Your task to perform on an android device: change the clock display to show seconds Image 0: 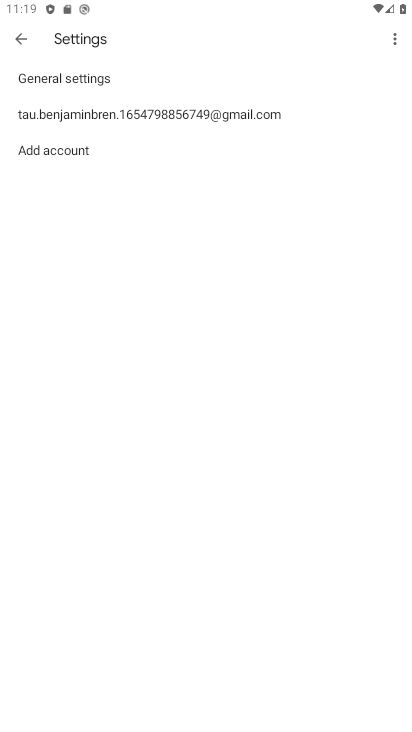
Step 0: press home button
Your task to perform on an android device: change the clock display to show seconds Image 1: 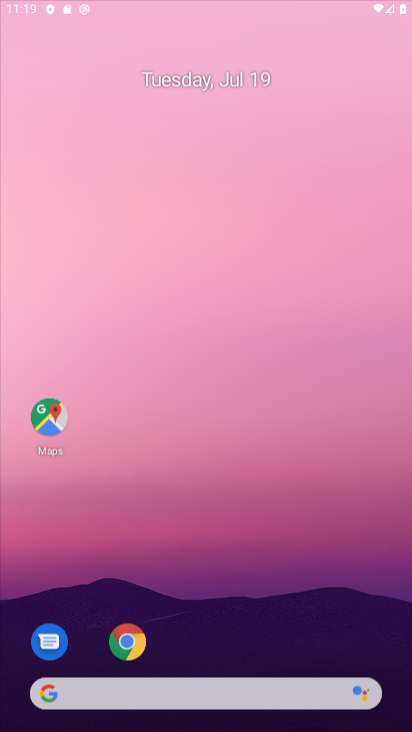
Step 1: drag from (218, 616) to (292, 11)
Your task to perform on an android device: change the clock display to show seconds Image 2: 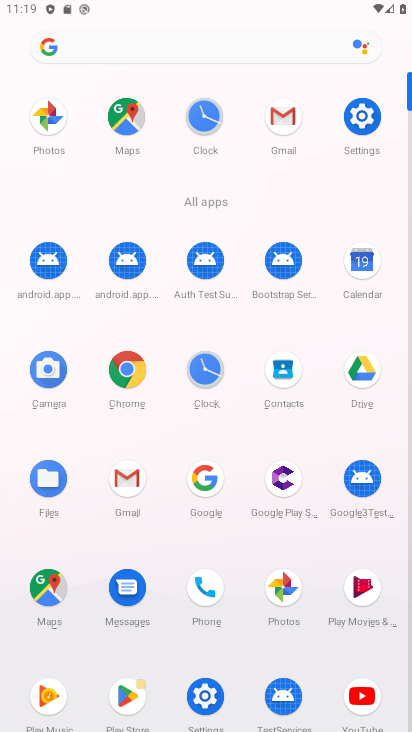
Step 2: click (205, 366)
Your task to perform on an android device: change the clock display to show seconds Image 3: 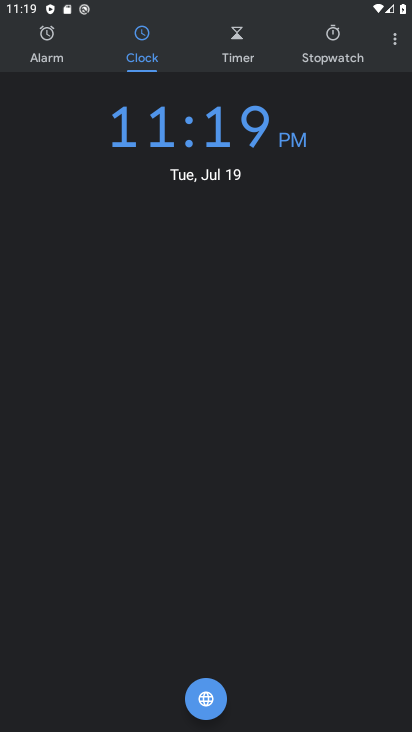
Step 3: click (394, 38)
Your task to perform on an android device: change the clock display to show seconds Image 4: 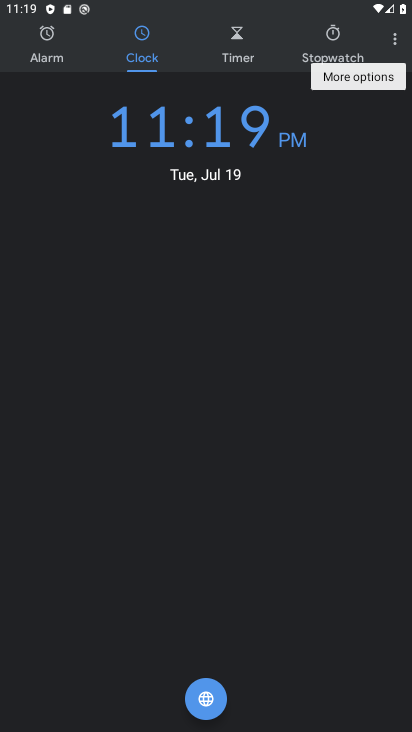
Step 4: click (376, 76)
Your task to perform on an android device: change the clock display to show seconds Image 5: 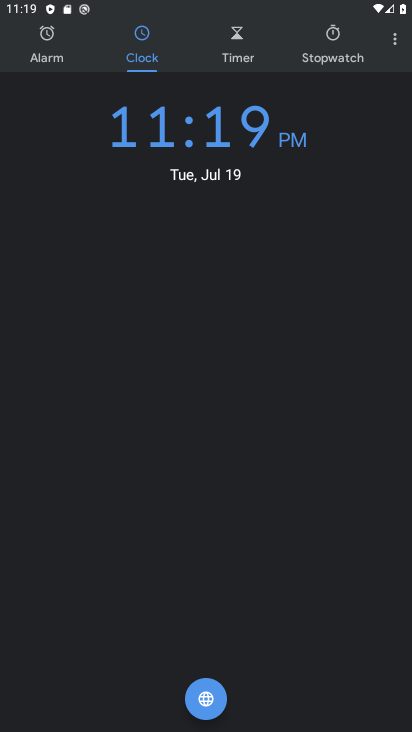
Step 5: click (395, 37)
Your task to perform on an android device: change the clock display to show seconds Image 6: 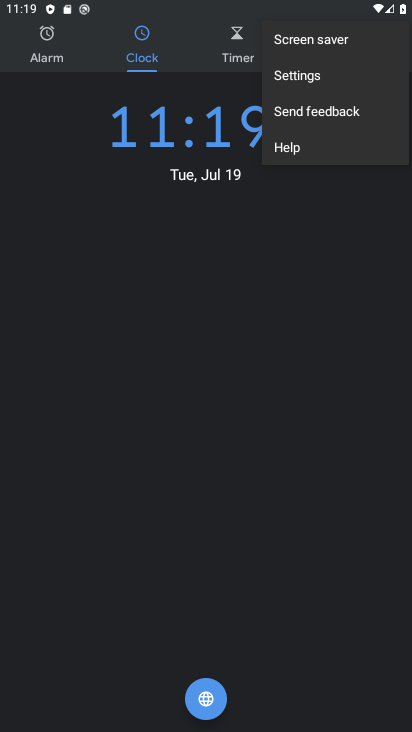
Step 6: click (337, 62)
Your task to perform on an android device: change the clock display to show seconds Image 7: 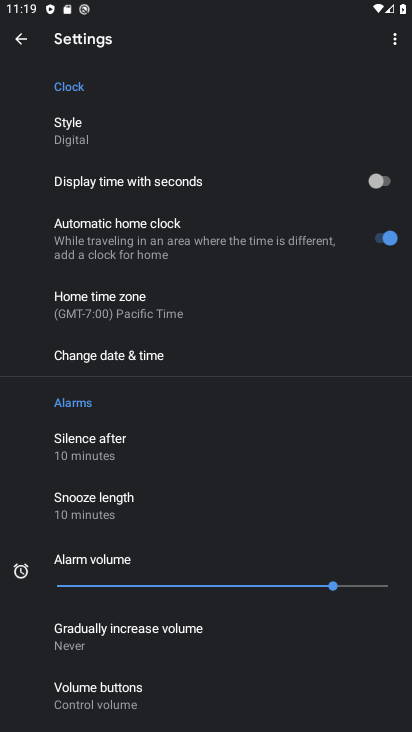
Step 7: click (253, 183)
Your task to perform on an android device: change the clock display to show seconds Image 8: 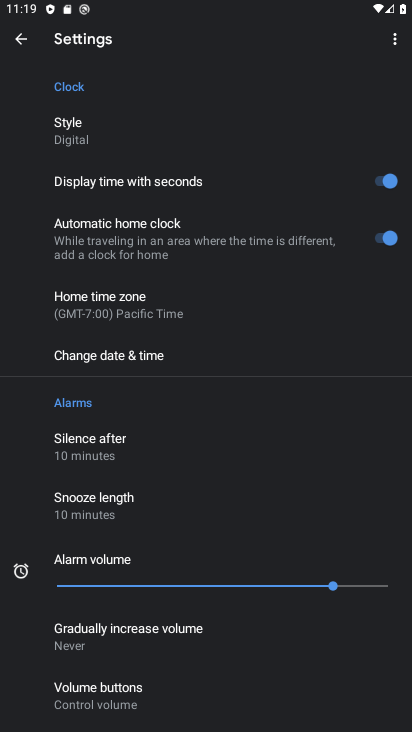
Step 8: task complete